Your task to perform on an android device: Empty the shopping cart on ebay.com. Search for alienware aurora on ebay.com, select the first entry, add it to the cart, then select checkout. Image 0: 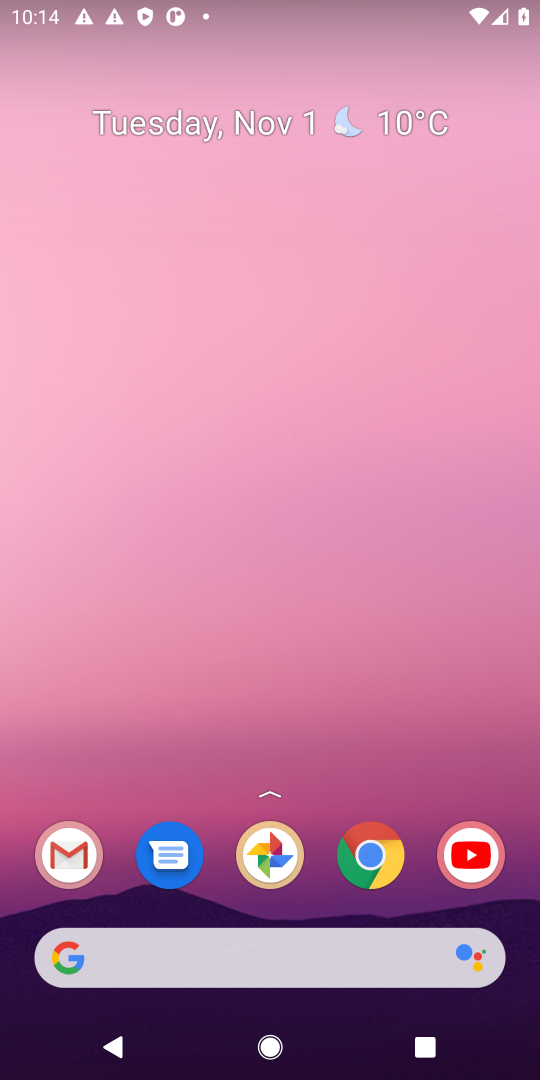
Step 0: press home button
Your task to perform on an android device: Empty the shopping cart on ebay.com. Search for alienware aurora on ebay.com, select the first entry, add it to the cart, then select checkout. Image 1: 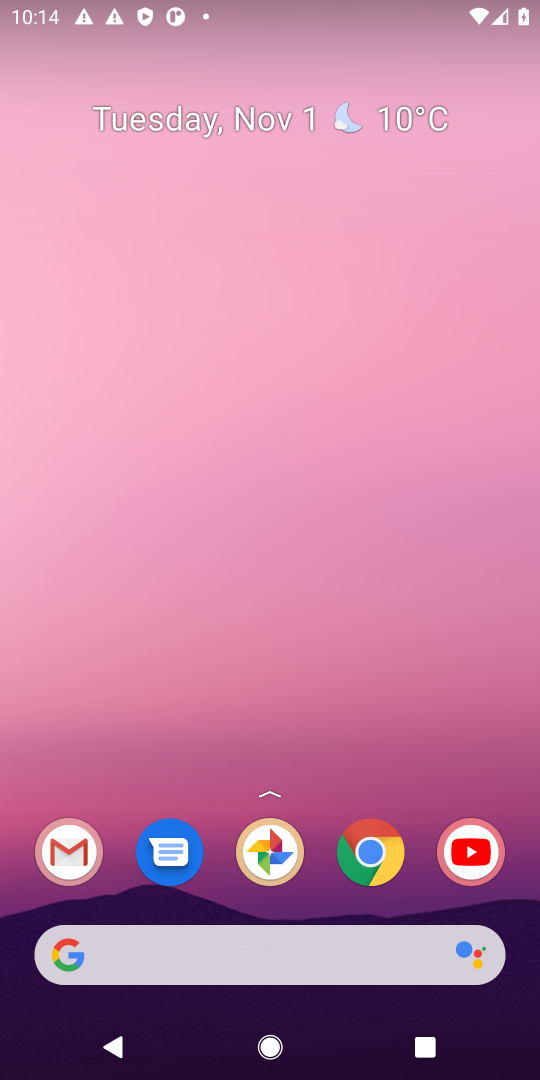
Step 1: click (60, 962)
Your task to perform on an android device: Empty the shopping cart on ebay.com. Search for alienware aurora on ebay.com, select the first entry, add it to the cart, then select checkout. Image 2: 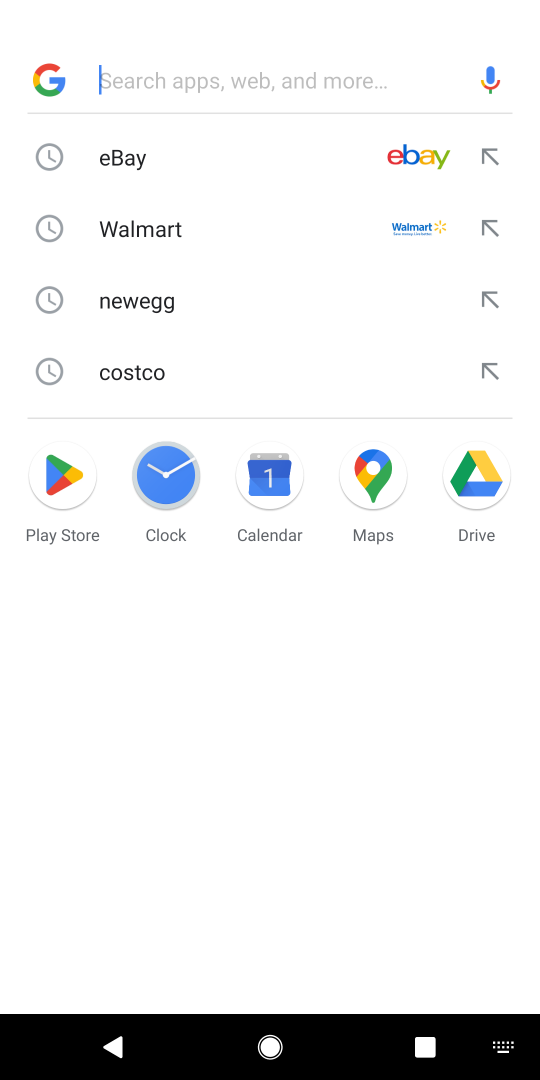
Step 2: click (131, 151)
Your task to perform on an android device: Empty the shopping cart on ebay.com. Search for alienware aurora on ebay.com, select the first entry, add it to the cart, then select checkout. Image 3: 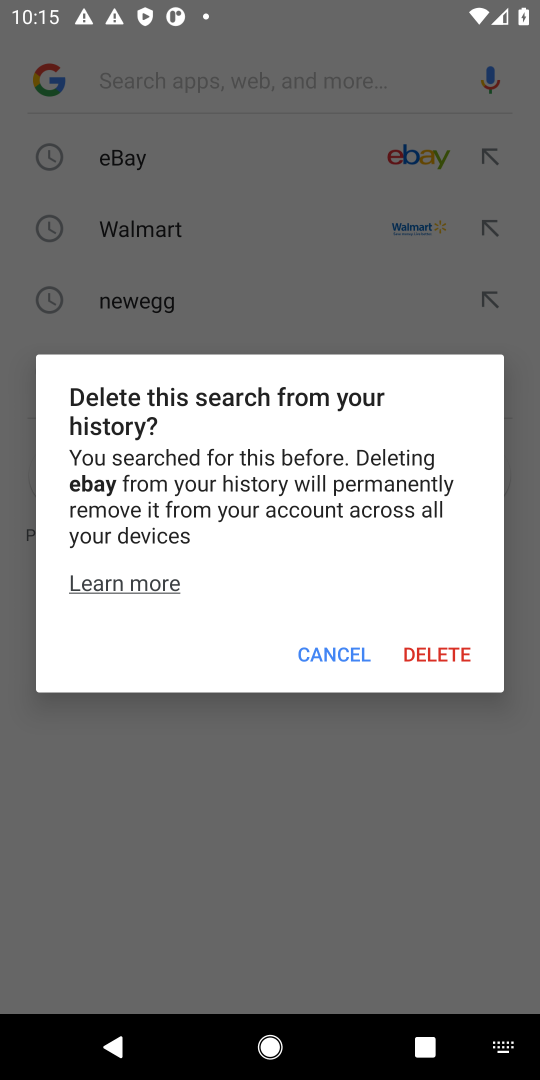
Step 3: click (335, 652)
Your task to perform on an android device: Empty the shopping cart on ebay.com. Search for alienware aurora on ebay.com, select the first entry, add it to the cart, then select checkout. Image 4: 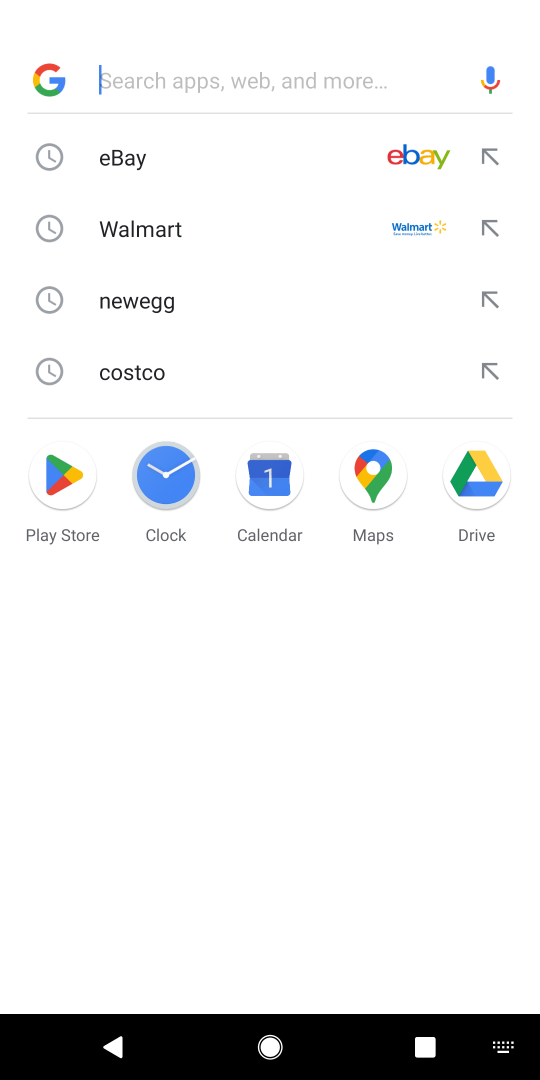
Step 4: click (459, 648)
Your task to perform on an android device: Empty the shopping cart on ebay.com. Search for alienware aurora on ebay.com, select the first entry, add it to the cart, then select checkout. Image 5: 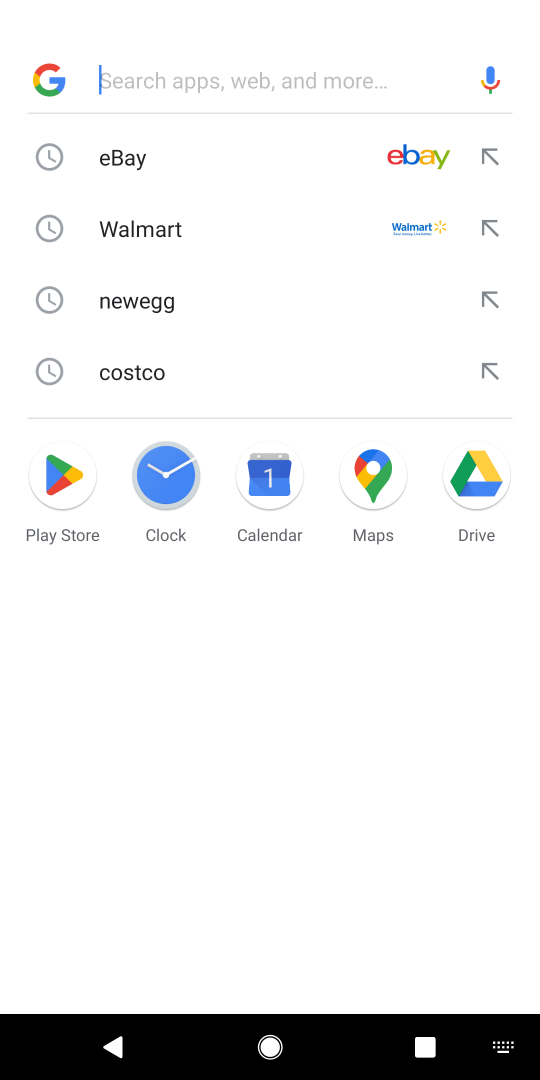
Step 5: click (133, 165)
Your task to perform on an android device: Empty the shopping cart on ebay.com. Search for alienware aurora on ebay.com, select the first entry, add it to the cart, then select checkout. Image 6: 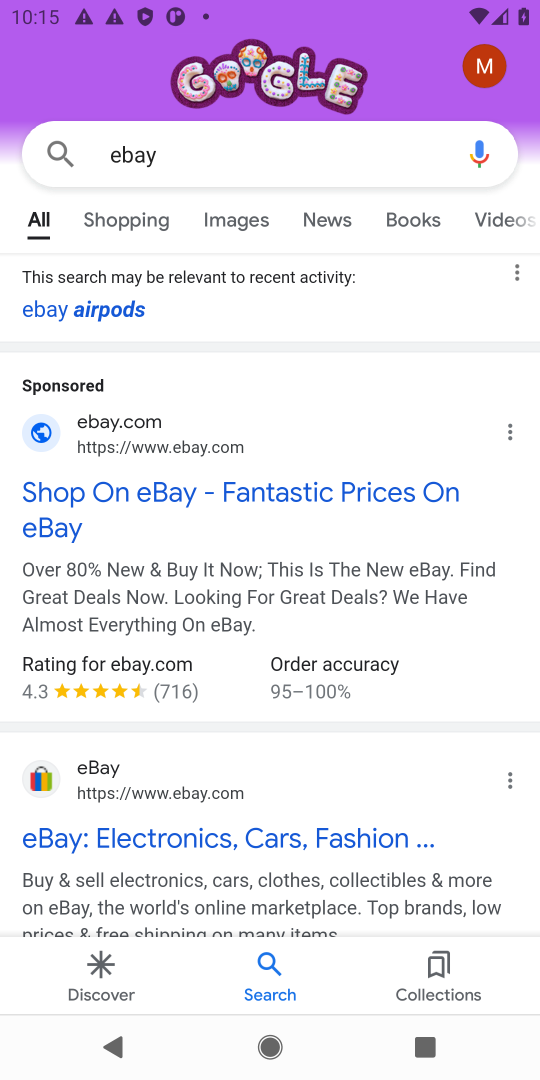
Step 6: click (155, 846)
Your task to perform on an android device: Empty the shopping cart on ebay.com. Search for alienware aurora on ebay.com, select the first entry, add it to the cart, then select checkout. Image 7: 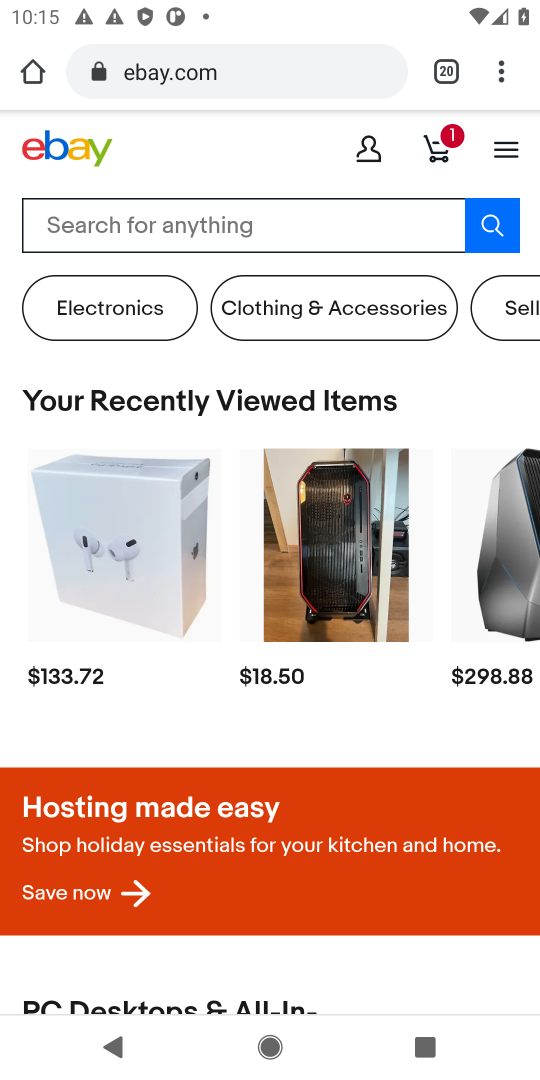
Step 7: click (451, 134)
Your task to perform on an android device: Empty the shopping cart on ebay.com. Search for alienware aurora on ebay.com, select the first entry, add it to the cart, then select checkout. Image 8: 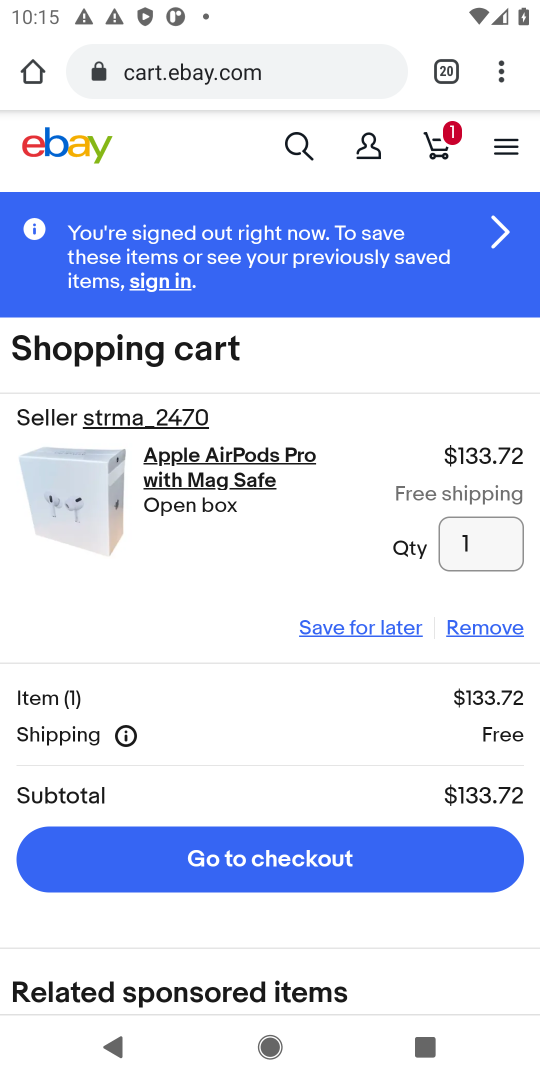
Step 8: click (470, 622)
Your task to perform on an android device: Empty the shopping cart on ebay.com. Search for alienware aurora on ebay.com, select the first entry, add it to the cart, then select checkout. Image 9: 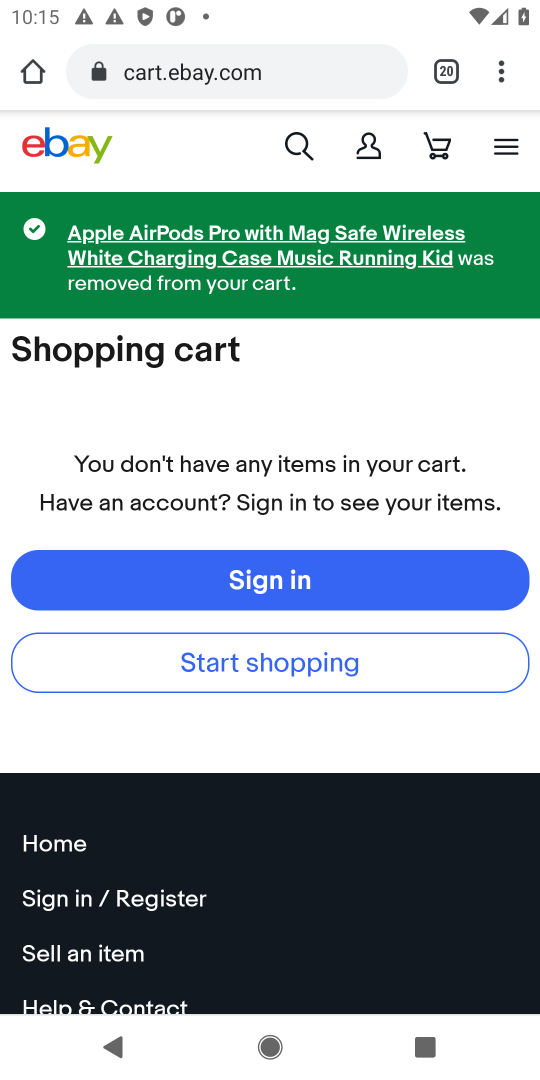
Step 9: click (303, 159)
Your task to perform on an android device: Empty the shopping cart on ebay.com. Search for alienware aurora on ebay.com, select the first entry, add it to the cart, then select checkout. Image 10: 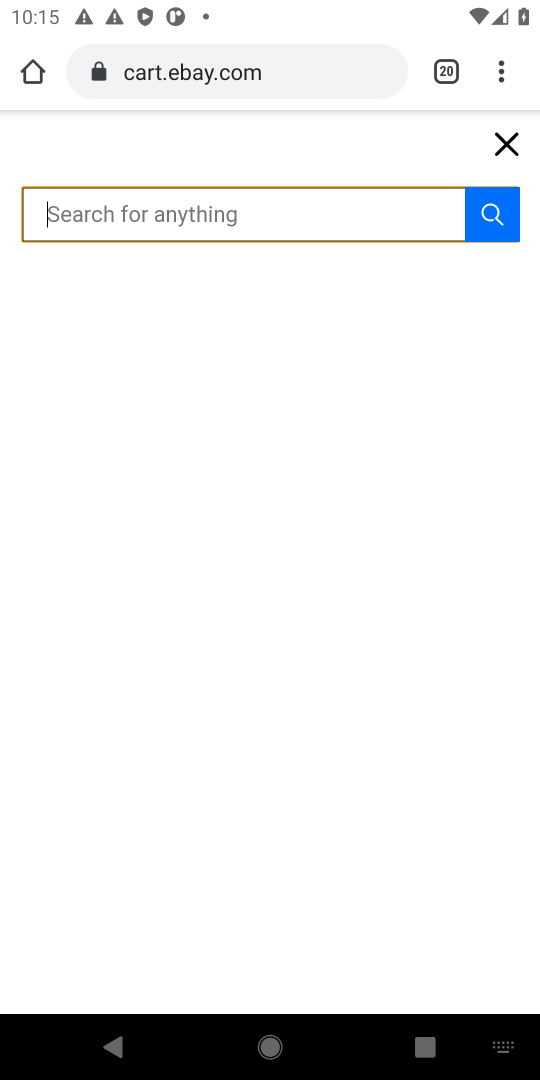
Step 10: type "alienware aurora "
Your task to perform on an android device: Empty the shopping cart on ebay.com. Search for alienware aurora on ebay.com, select the first entry, add it to the cart, then select checkout. Image 11: 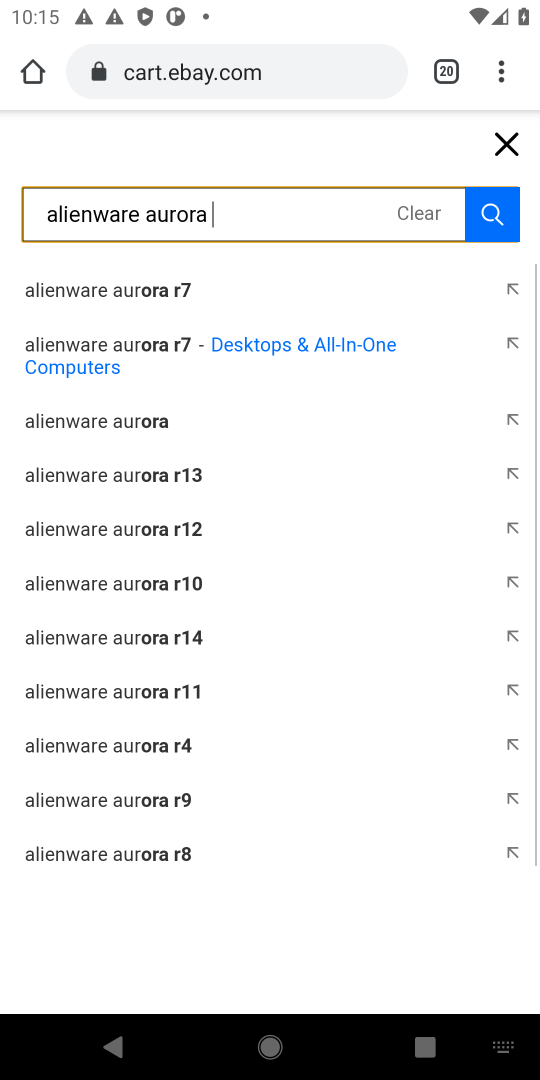
Step 11: press enter
Your task to perform on an android device: Empty the shopping cart on ebay.com. Search for alienware aurora on ebay.com, select the first entry, add it to the cart, then select checkout. Image 12: 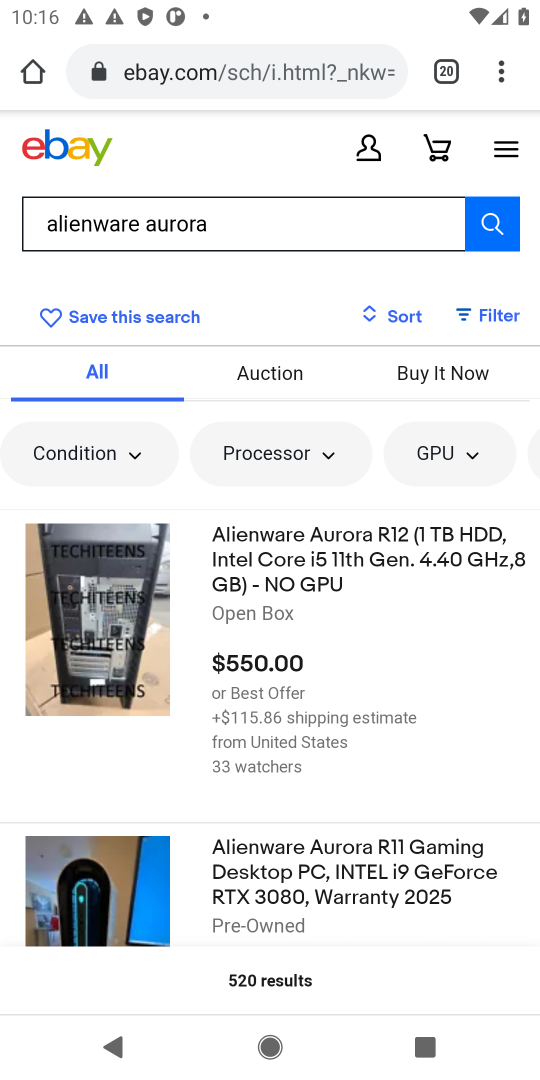
Step 12: click (93, 611)
Your task to perform on an android device: Empty the shopping cart on ebay.com. Search for alienware aurora on ebay.com, select the first entry, add it to the cart, then select checkout. Image 13: 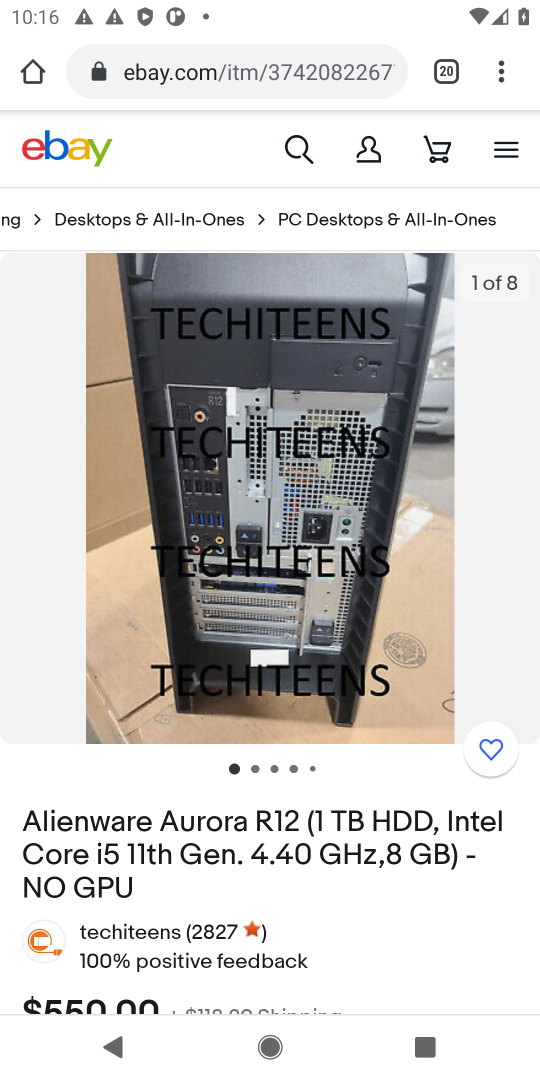
Step 13: drag from (445, 846) to (447, 190)
Your task to perform on an android device: Empty the shopping cart on ebay.com. Search for alienware aurora on ebay.com, select the first entry, add it to the cart, then select checkout. Image 14: 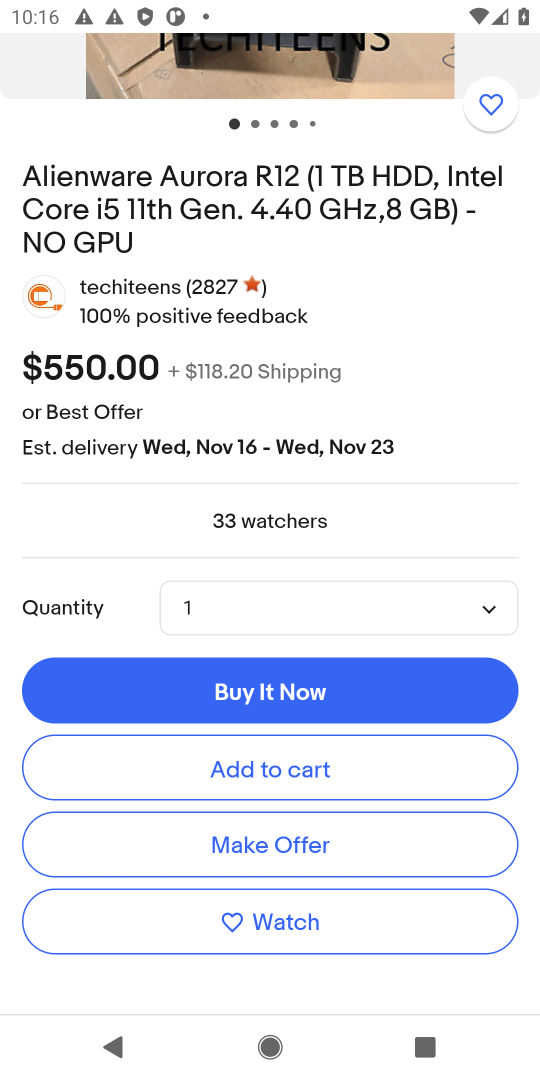
Step 14: drag from (406, 732) to (375, 424)
Your task to perform on an android device: Empty the shopping cart on ebay.com. Search for alienware aurora on ebay.com, select the first entry, add it to the cart, then select checkout. Image 15: 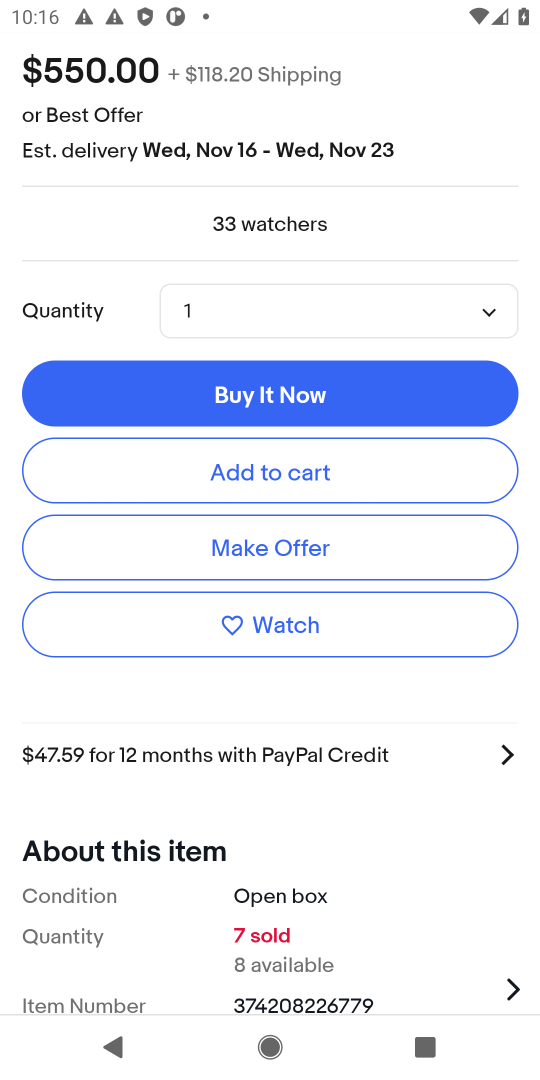
Step 15: click (263, 467)
Your task to perform on an android device: Empty the shopping cart on ebay.com. Search for alienware aurora on ebay.com, select the first entry, add it to the cart, then select checkout. Image 16: 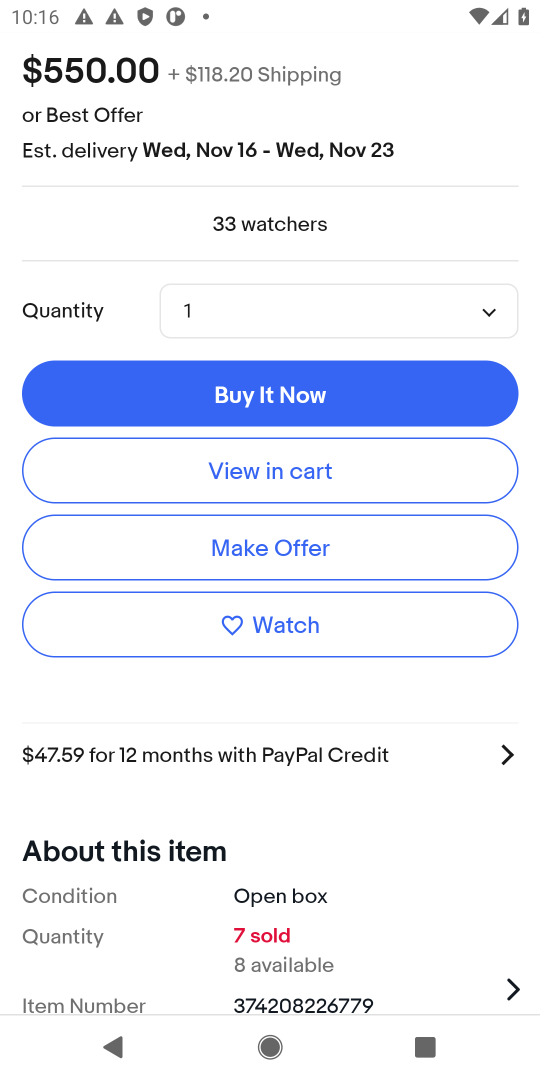
Step 16: click (260, 469)
Your task to perform on an android device: Empty the shopping cart on ebay.com. Search for alienware aurora on ebay.com, select the first entry, add it to the cart, then select checkout. Image 17: 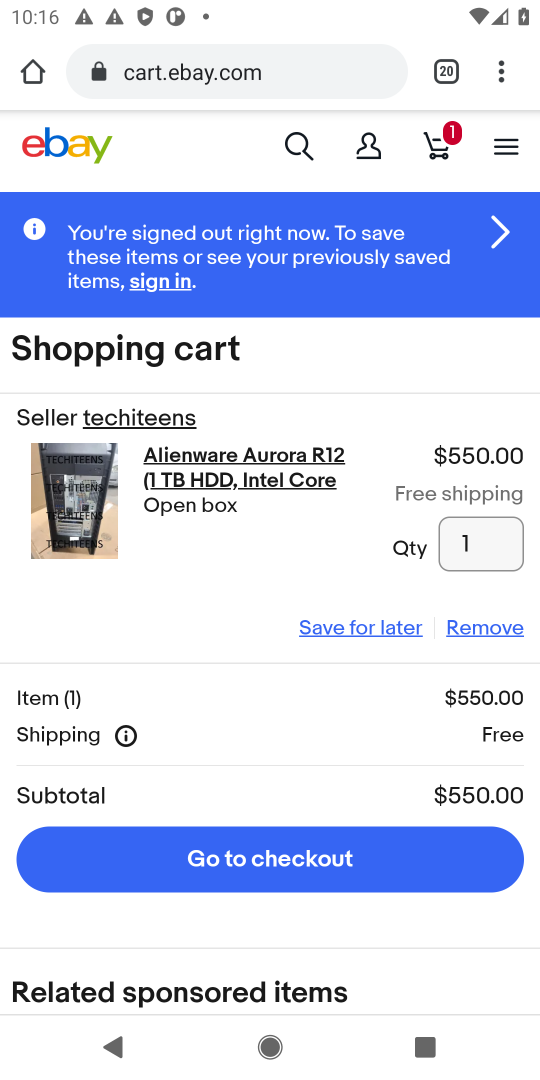
Step 17: click (219, 868)
Your task to perform on an android device: Empty the shopping cart on ebay.com. Search for alienware aurora on ebay.com, select the first entry, add it to the cart, then select checkout. Image 18: 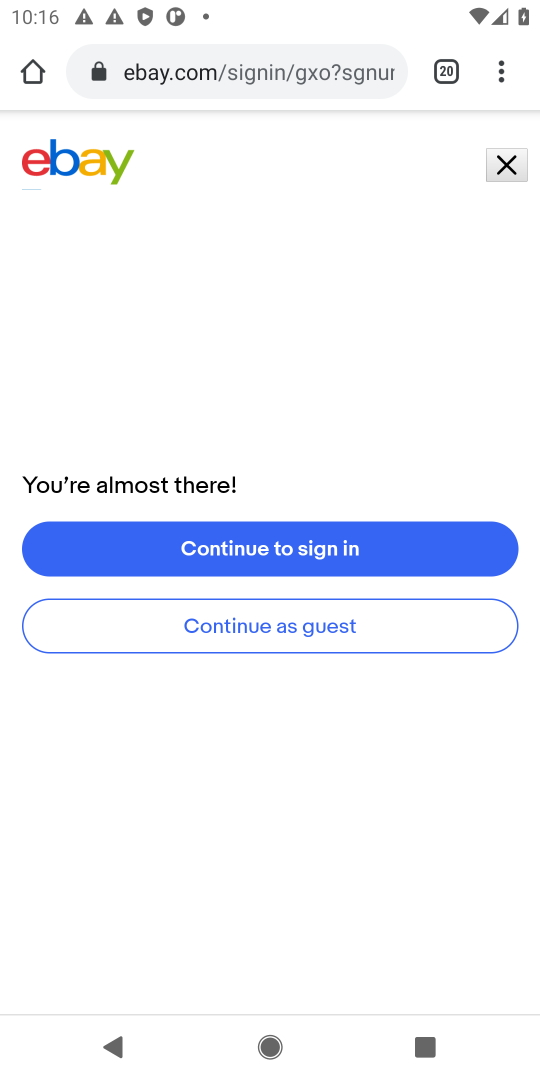
Step 18: task complete